Your task to perform on an android device: toggle priority inbox in the gmail app Image 0: 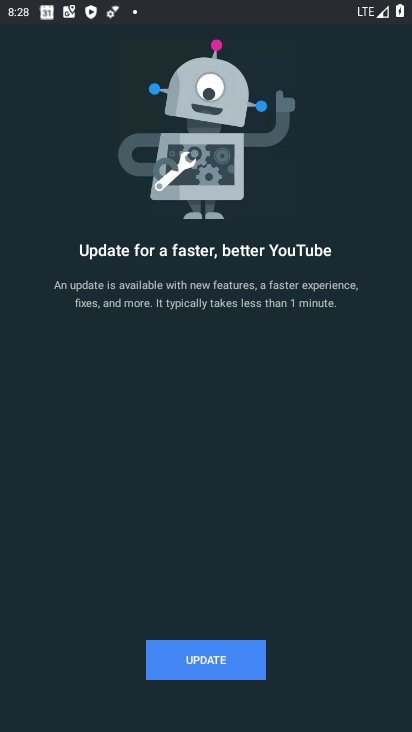
Step 0: drag from (249, 613) to (243, 291)
Your task to perform on an android device: toggle priority inbox in the gmail app Image 1: 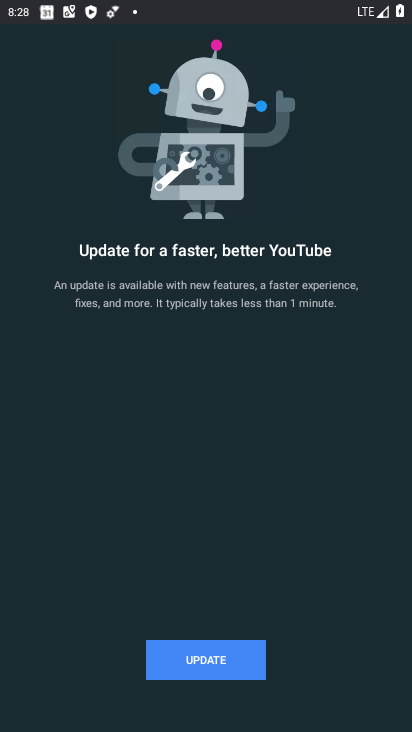
Step 1: press home button
Your task to perform on an android device: toggle priority inbox in the gmail app Image 2: 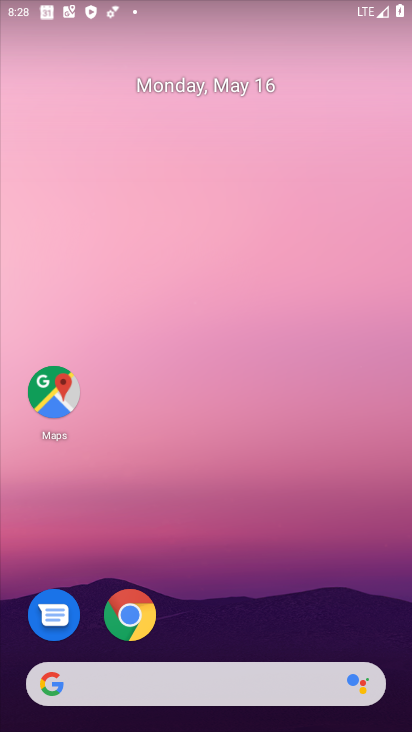
Step 2: drag from (161, 684) to (186, 121)
Your task to perform on an android device: toggle priority inbox in the gmail app Image 3: 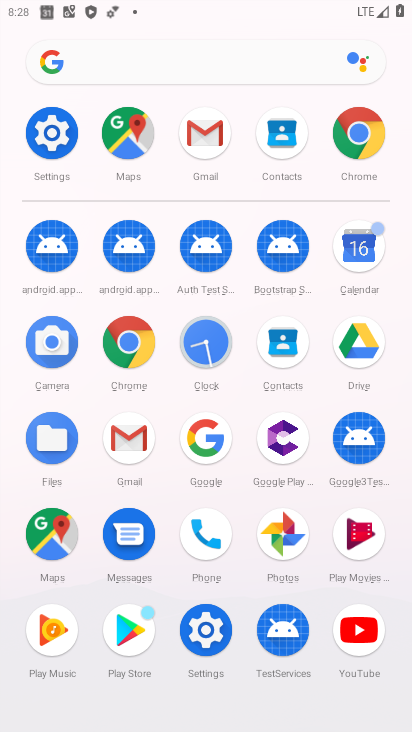
Step 3: click (204, 130)
Your task to perform on an android device: toggle priority inbox in the gmail app Image 4: 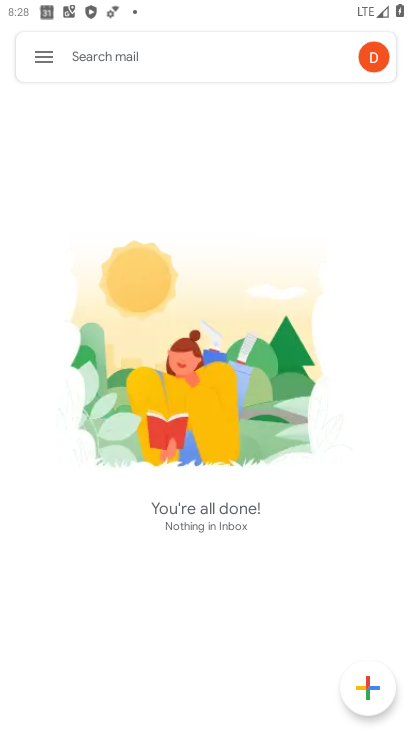
Step 4: click (63, 52)
Your task to perform on an android device: toggle priority inbox in the gmail app Image 5: 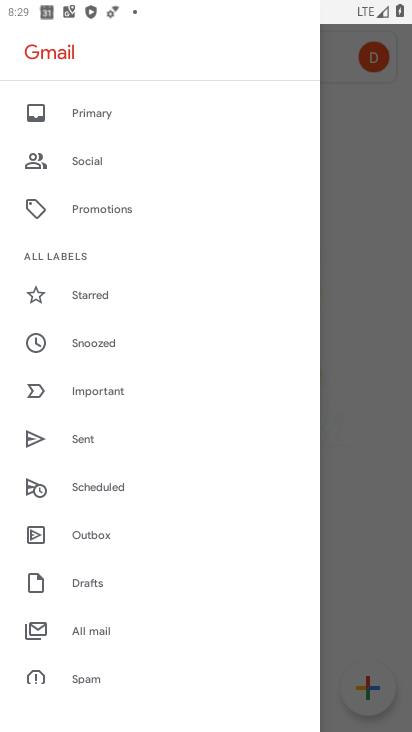
Step 5: drag from (111, 581) to (117, 322)
Your task to perform on an android device: toggle priority inbox in the gmail app Image 6: 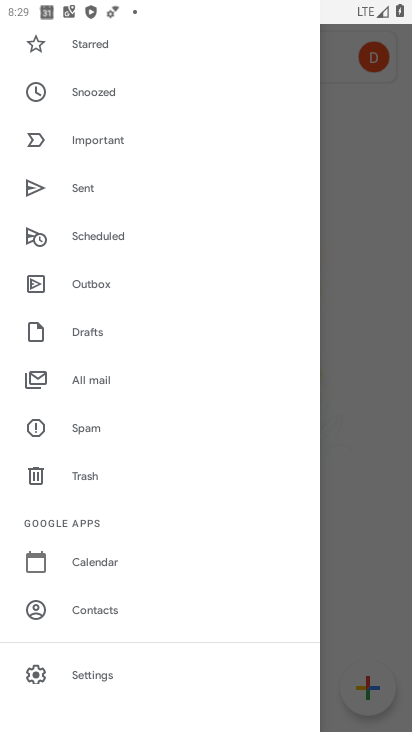
Step 6: click (80, 683)
Your task to perform on an android device: toggle priority inbox in the gmail app Image 7: 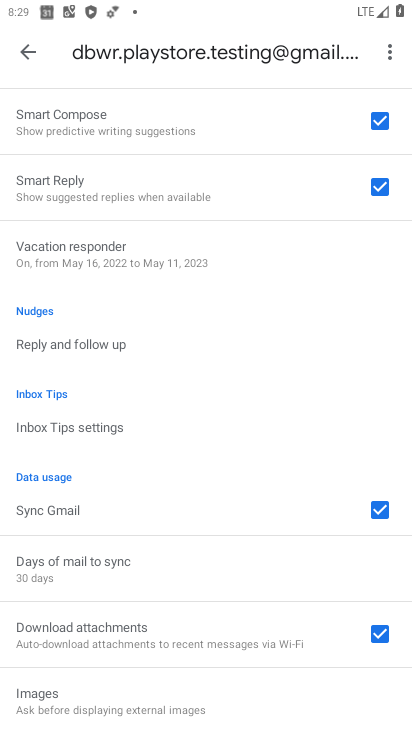
Step 7: drag from (142, 642) to (182, 432)
Your task to perform on an android device: toggle priority inbox in the gmail app Image 8: 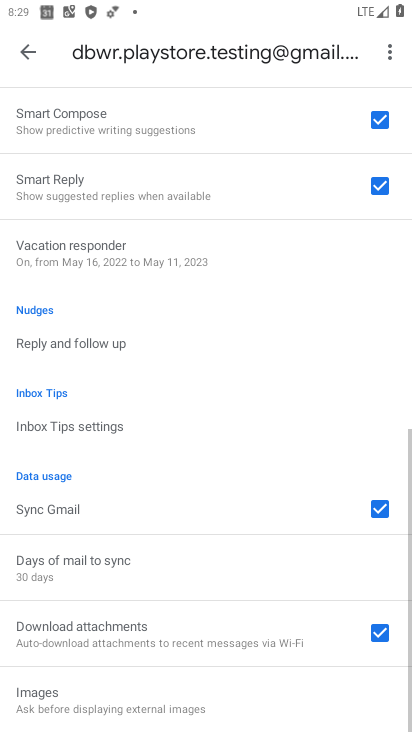
Step 8: drag from (163, 276) to (160, 625)
Your task to perform on an android device: toggle priority inbox in the gmail app Image 9: 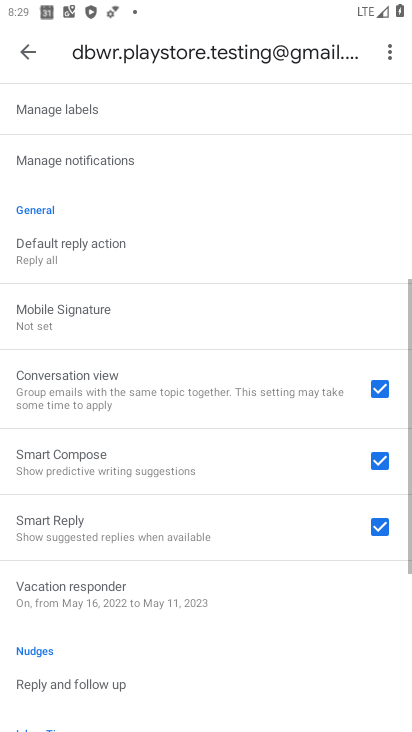
Step 9: drag from (180, 305) to (195, 557)
Your task to perform on an android device: toggle priority inbox in the gmail app Image 10: 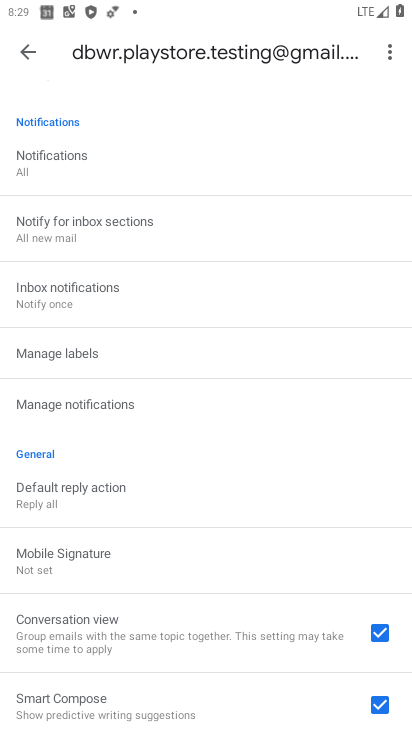
Step 10: drag from (206, 418) to (208, 566)
Your task to perform on an android device: toggle priority inbox in the gmail app Image 11: 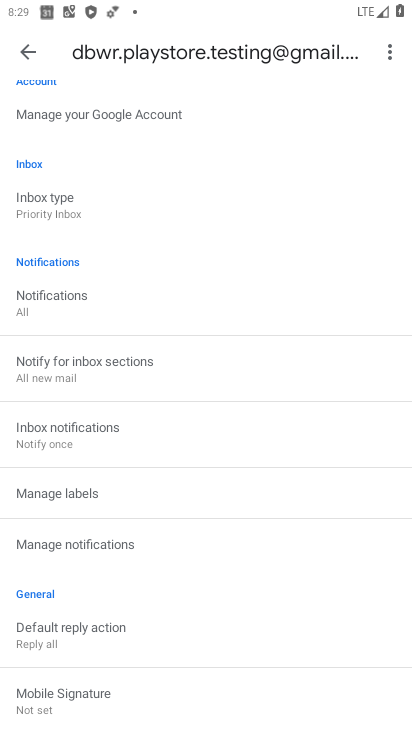
Step 11: click (80, 214)
Your task to perform on an android device: toggle priority inbox in the gmail app Image 12: 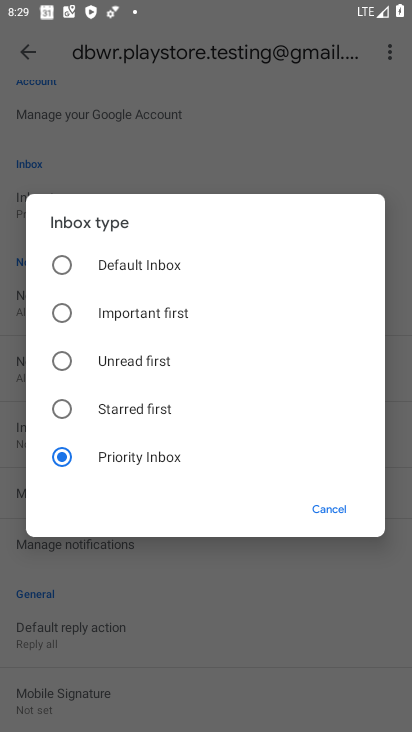
Step 12: click (66, 262)
Your task to perform on an android device: toggle priority inbox in the gmail app Image 13: 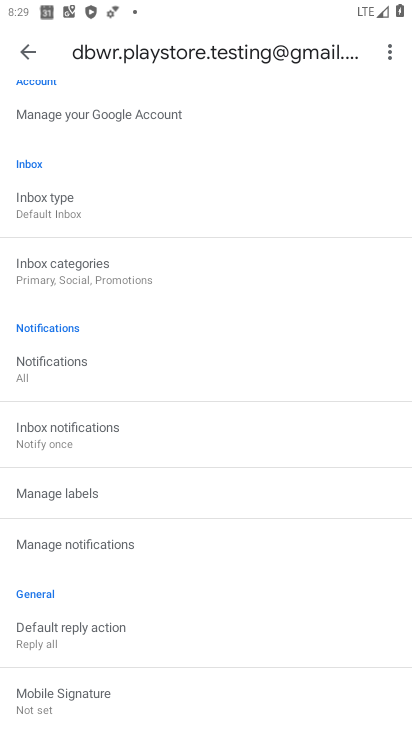
Step 13: task complete